Your task to perform on an android device: Open Google Maps Image 0: 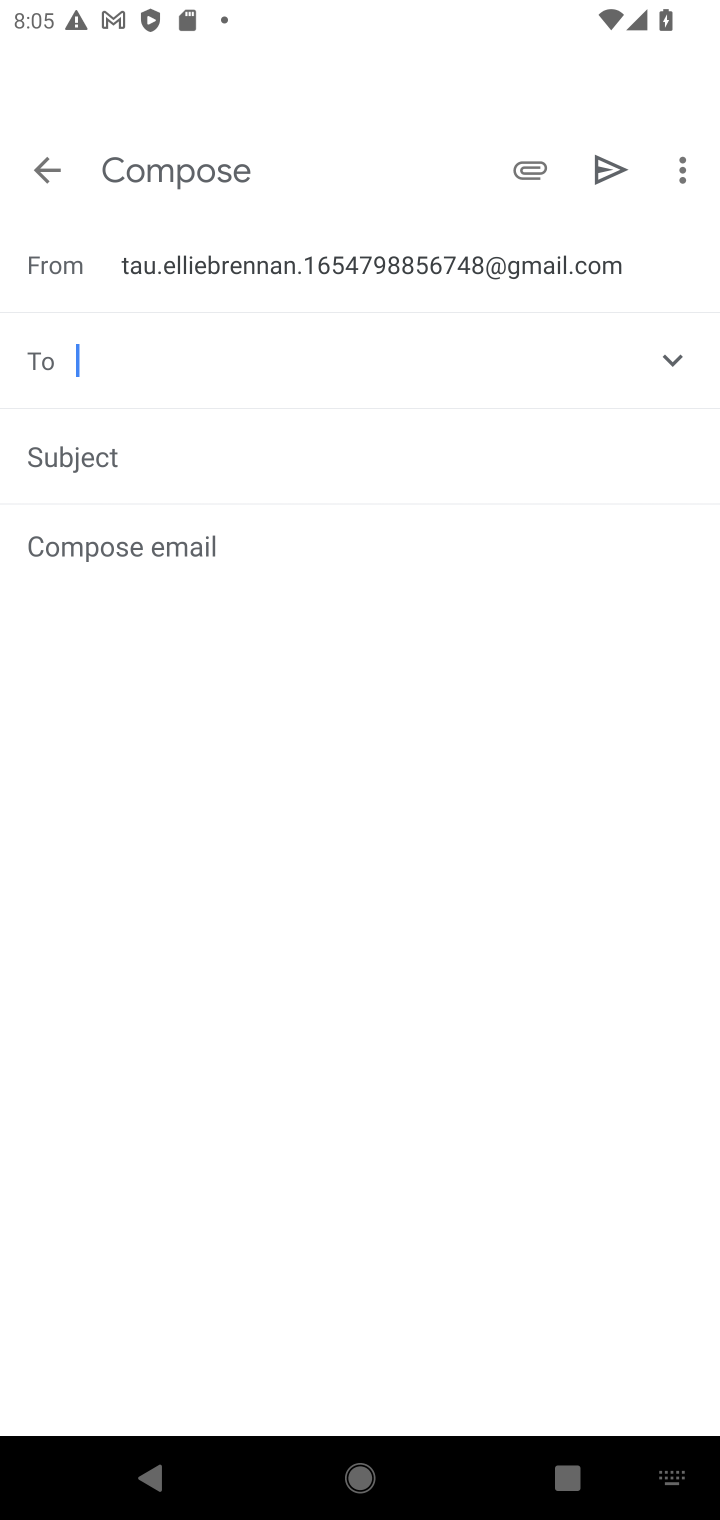
Step 0: press home button
Your task to perform on an android device: Open Google Maps Image 1: 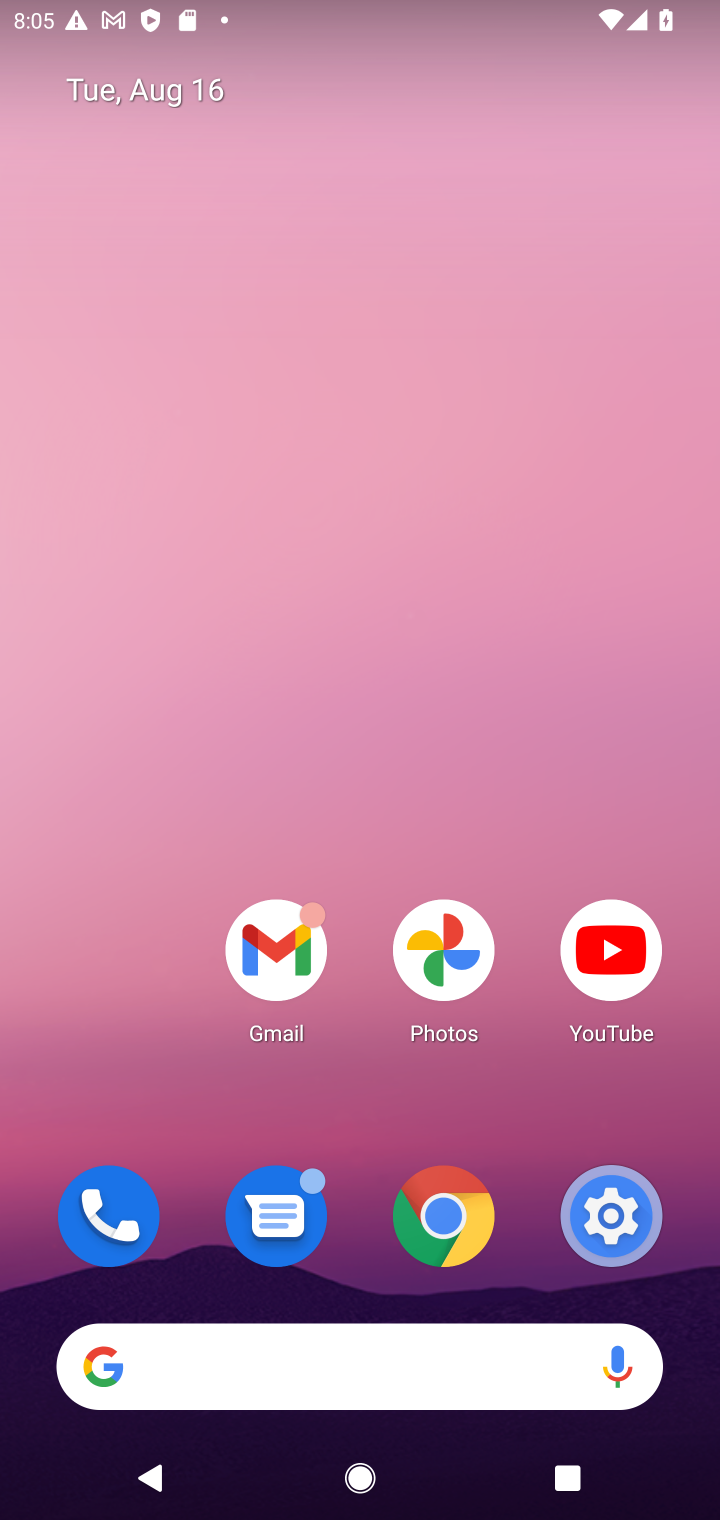
Step 1: drag from (360, 1225) to (341, 28)
Your task to perform on an android device: Open Google Maps Image 2: 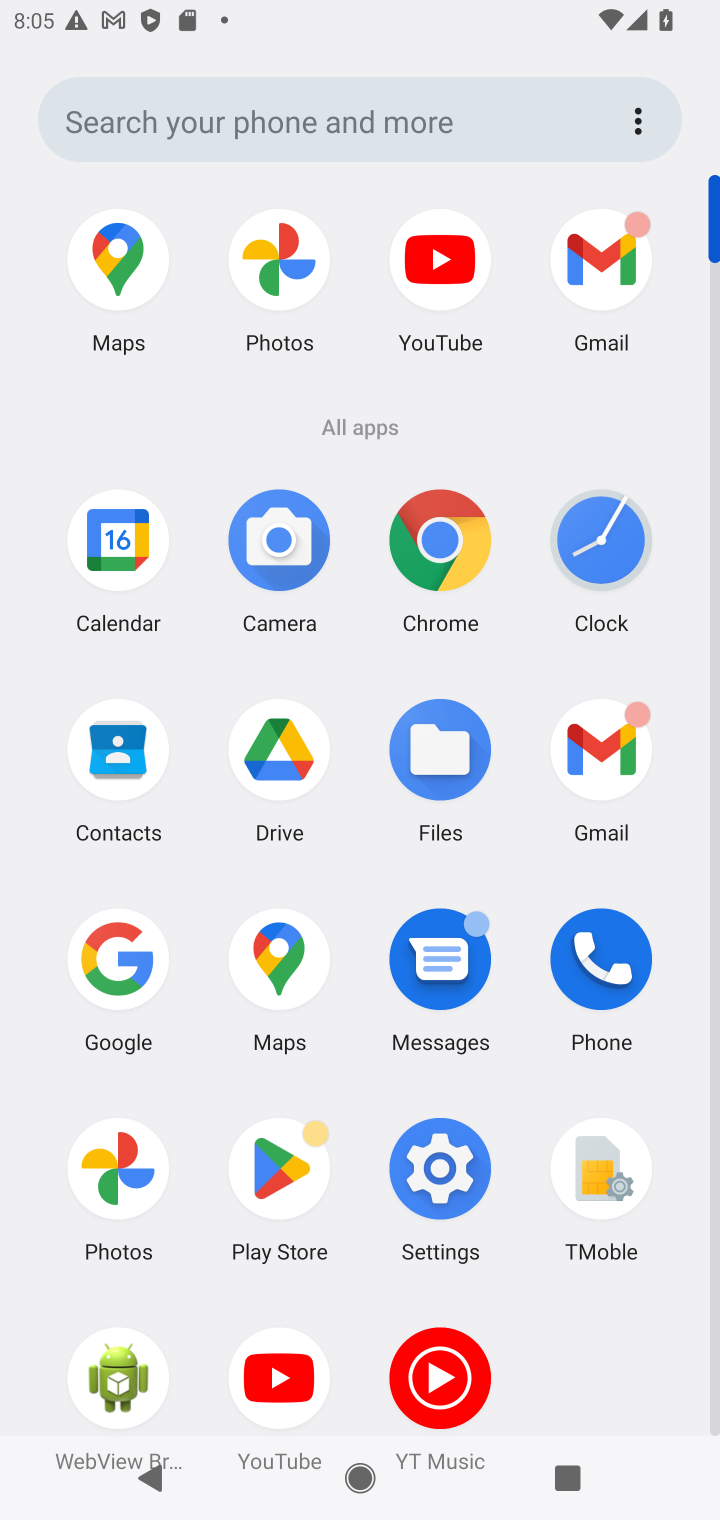
Step 2: click (288, 975)
Your task to perform on an android device: Open Google Maps Image 3: 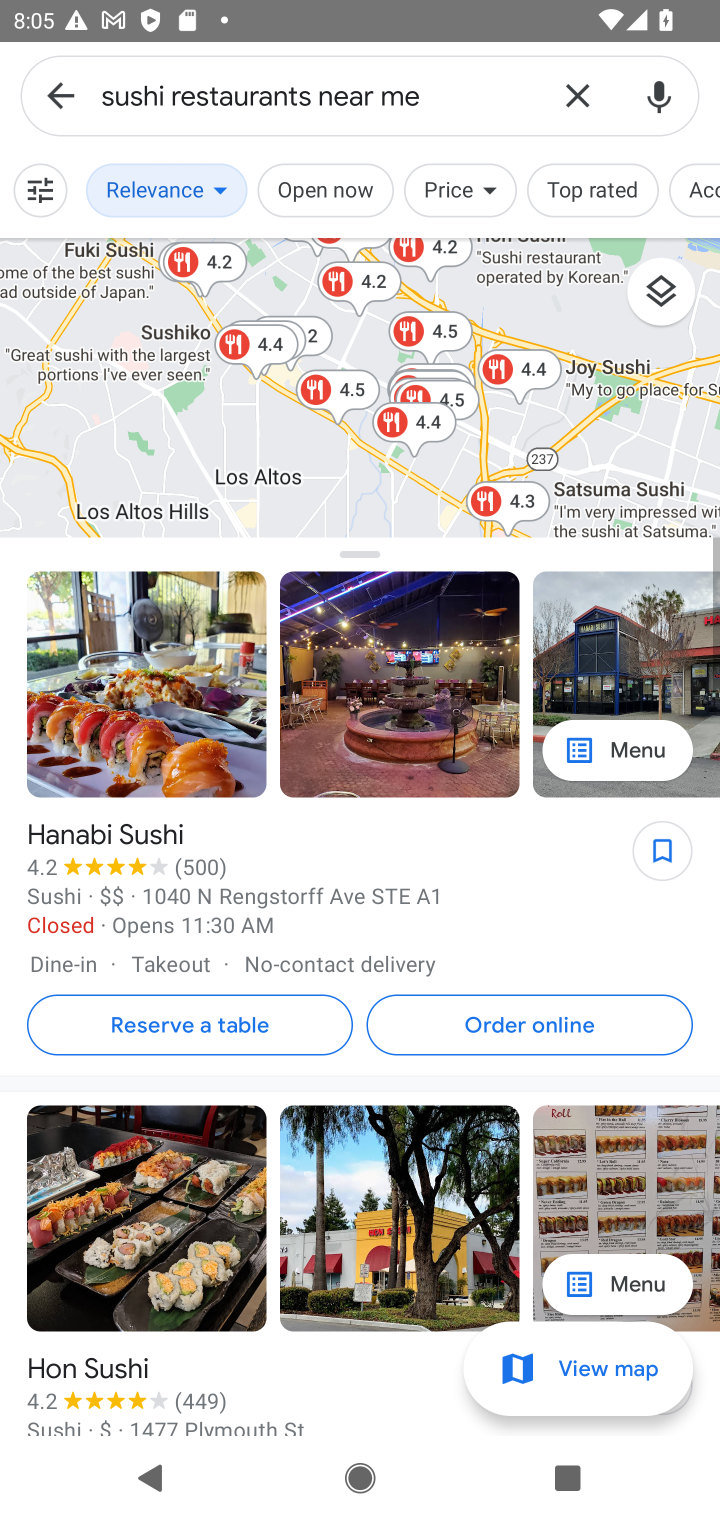
Step 3: click (62, 116)
Your task to perform on an android device: Open Google Maps Image 4: 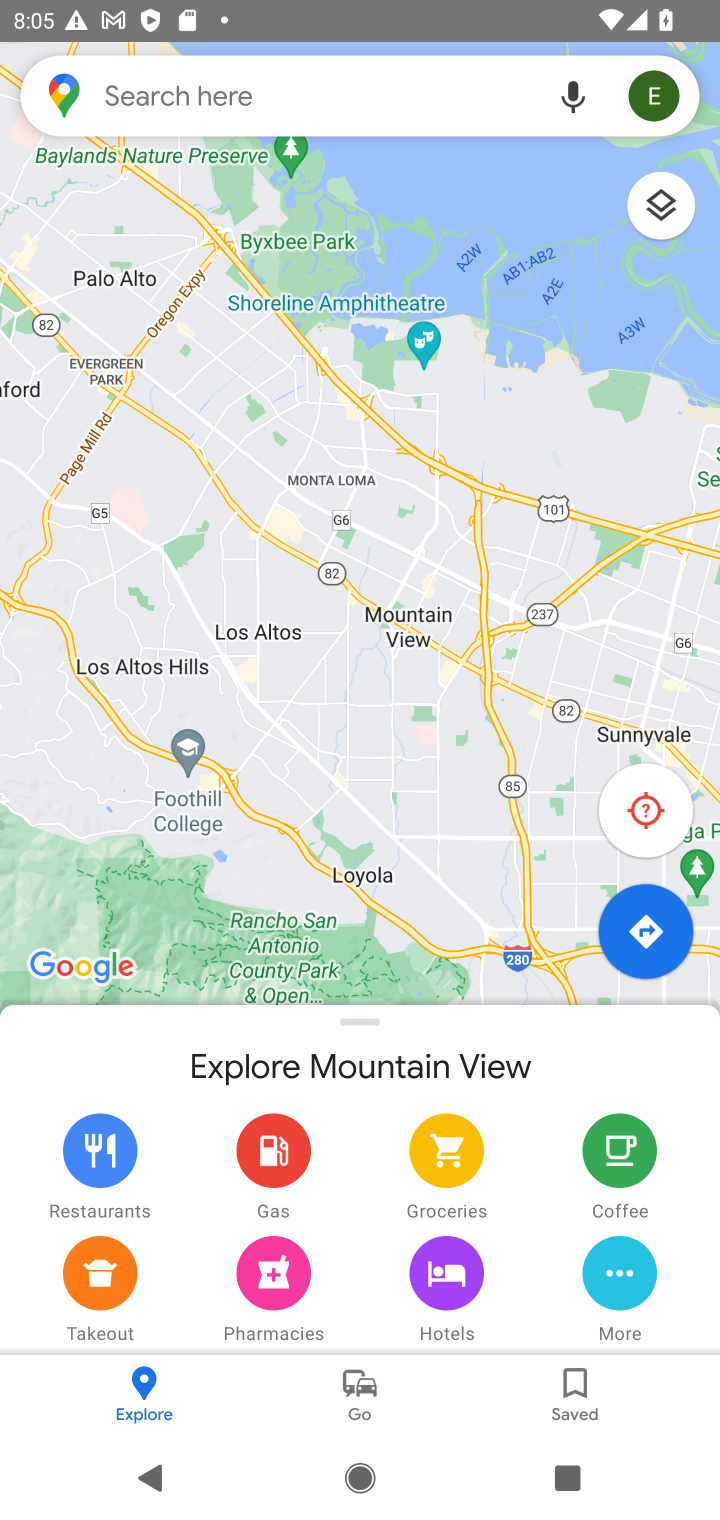
Step 4: task complete